Your task to perform on an android device: manage bookmarks in the chrome app Image 0: 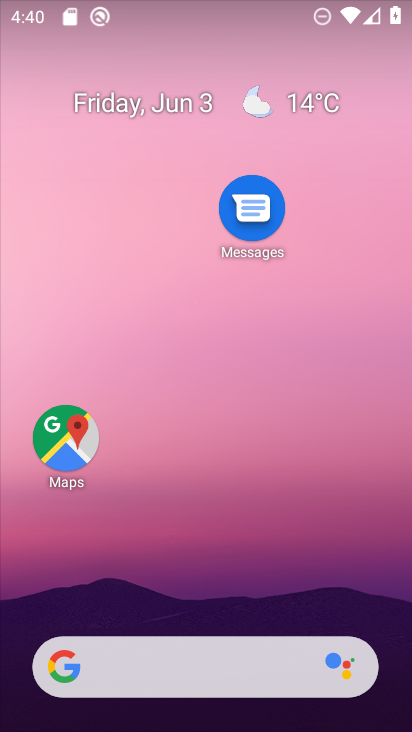
Step 0: drag from (196, 591) to (229, 181)
Your task to perform on an android device: manage bookmarks in the chrome app Image 1: 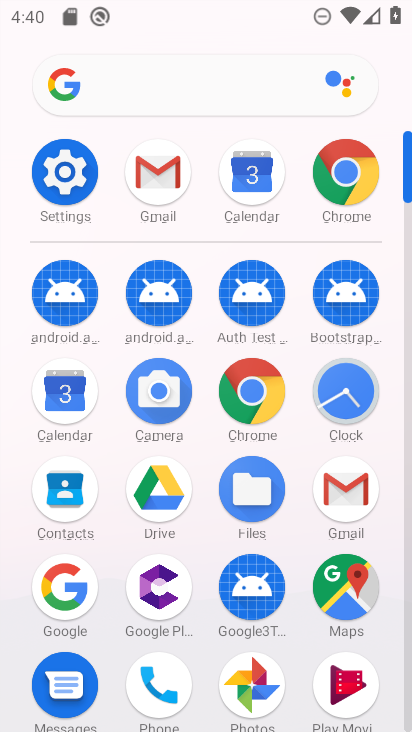
Step 1: drag from (223, 500) to (235, 216)
Your task to perform on an android device: manage bookmarks in the chrome app Image 2: 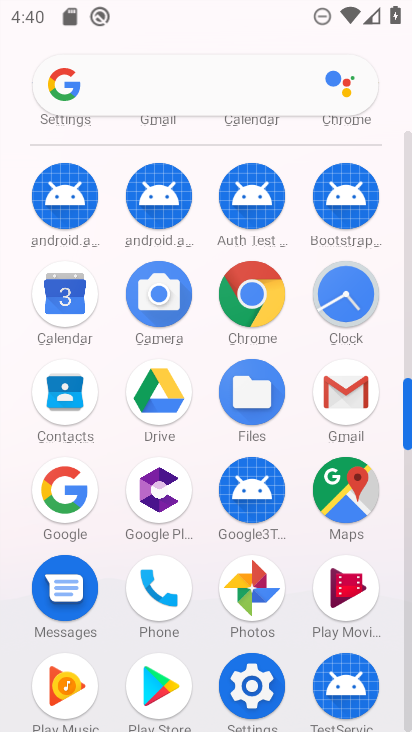
Step 2: click (348, 258)
Your task to perform on an android device: manage bookmarks in the chrome app Image 3: 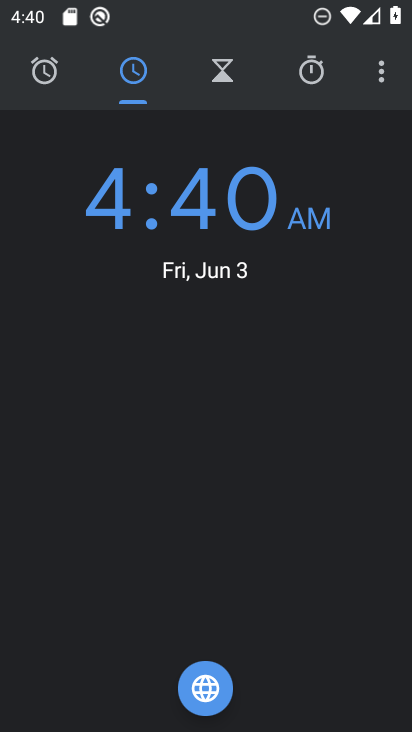
Step 3: press back button
Your task to perform on an android device: manage bookmarks in the chrome app Image 4: 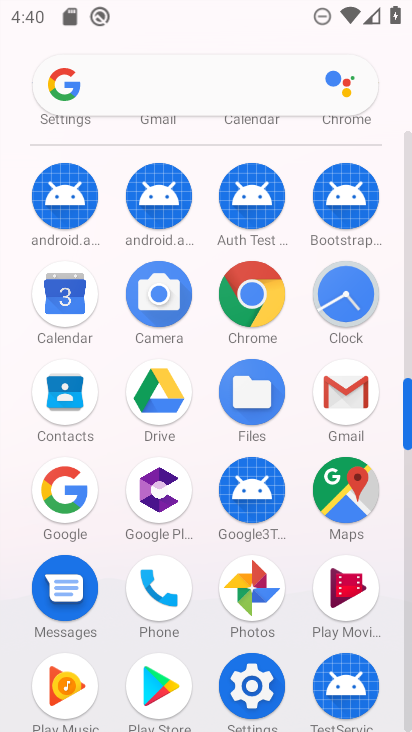
Step 4: click (243, 300)
Your task to perform on an android device: manage bookmarks in the chrome app Image 5: 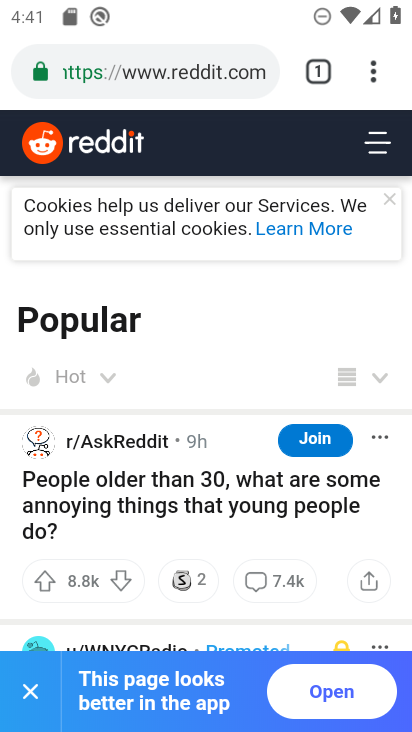
Step 5: click (377, 72)
Your task to perform on an android device: manage bookmarks in the chrome app Image 6: 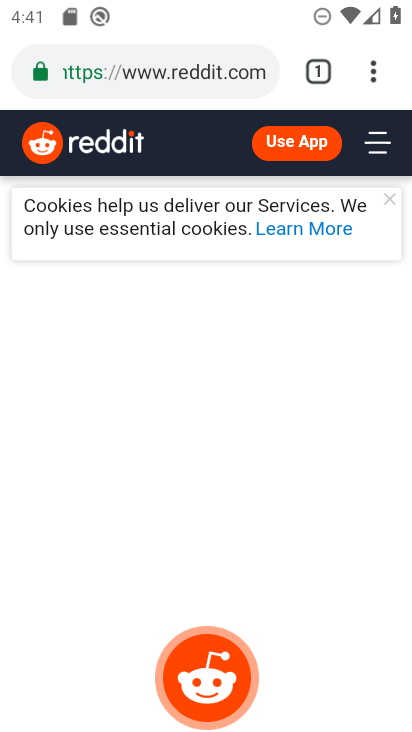
Step 6: click (372, 78)
Your task to perform on an android device: manage bookmarks in the chrome app Image 7: 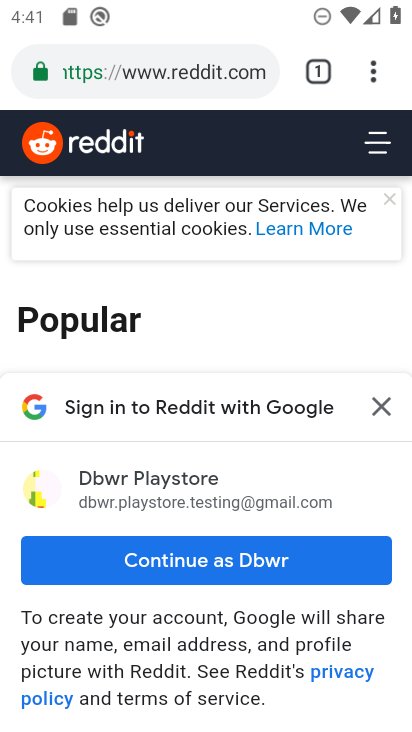
Step 7: click (376, 80)
Your task to perform on an android device: manage bookmarks in the chrome app Image 8: 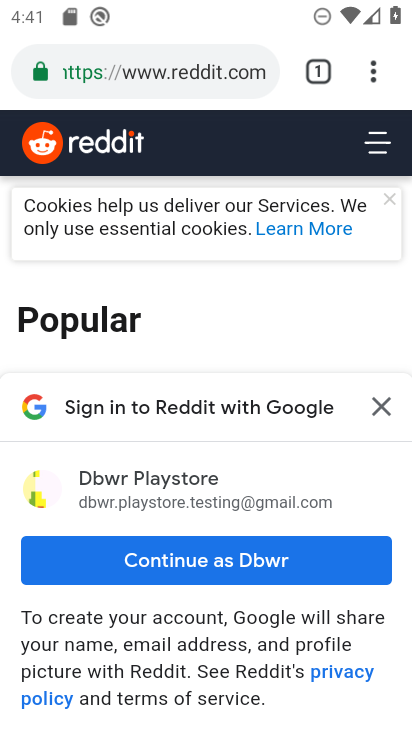
Step 8: click (372, 77)
Your task to perform on an android device: manage bookmarks in the chrome app Image 9: 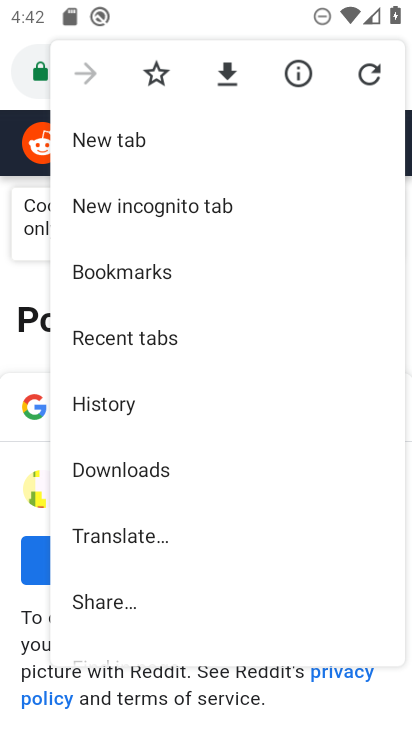
Step 9: click (191, 264)
Your task to perform on an android device: manage bookmarks in the chrome app Image 10: 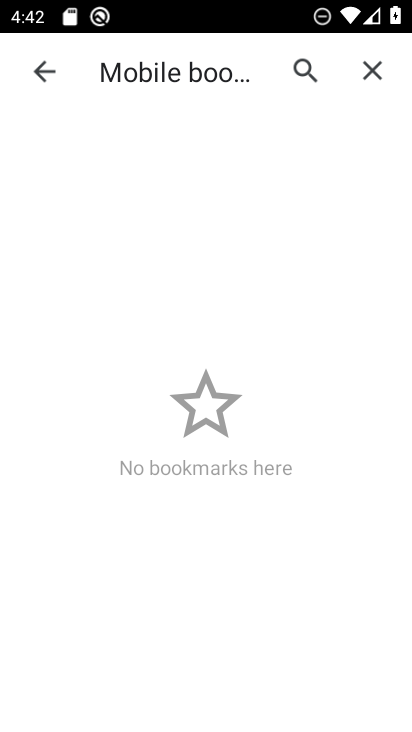
Step 10: task complete